Your task to perform on an android device: delete the emails in spam in the gmail app Image 0: 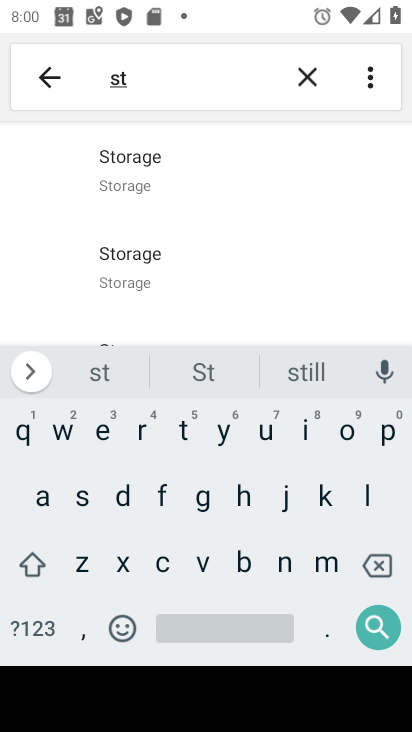
Step 0: press home button
Your task to perform on an android device: delete the emails in spam in the gmail app Image 1: 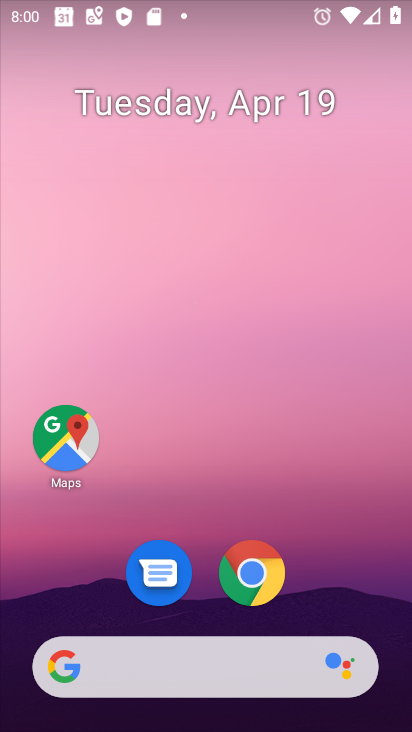
Step 1: drag from (234, 704) to (278, 64)
Your task to perform on an android device: delete the emails in spam in the gmail app Image 2: 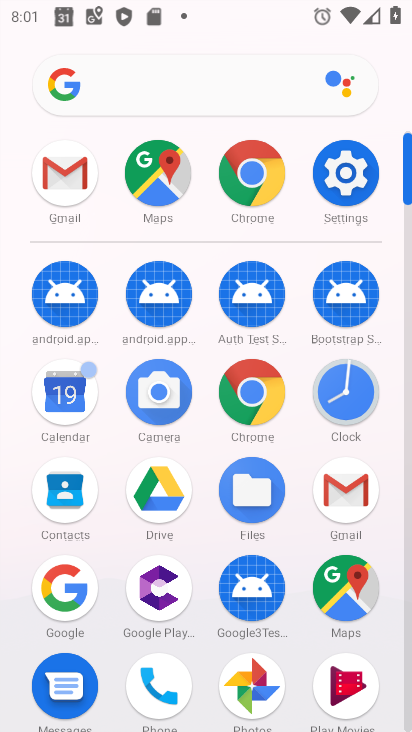
Step 2: click (341, 476)
Your task to perform on an android device: delete the emails in spam in the gmail app Image 3: 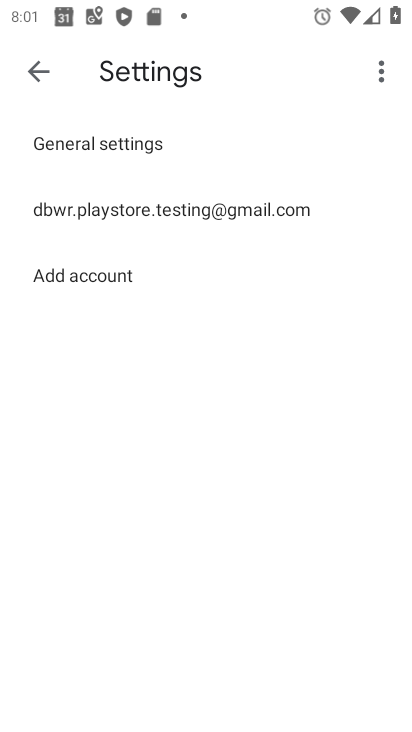
Step 3: click (33, 77)
Your task to perform on an android device: delete the emails in spam in the gmail app Image 4: 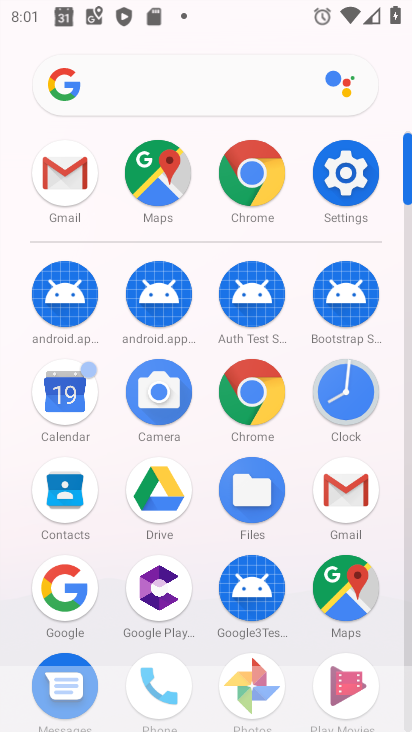
Step 4: click (66, 169)
Your task to perform on an android device: delete the emails in spam in the gmail app Image 5: 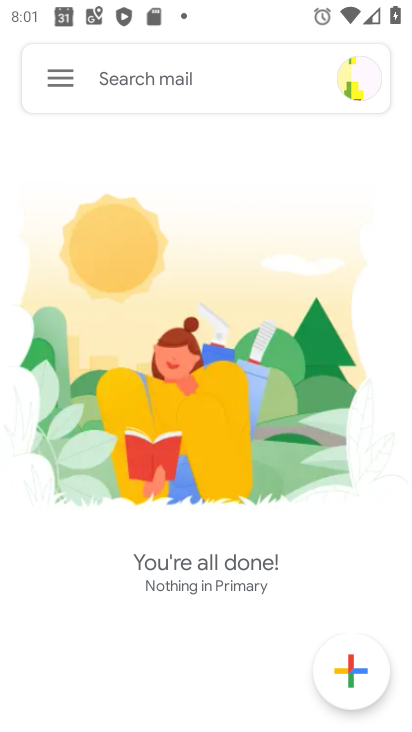
Step 5: click (60, 82)
Your task to perform on an android device: delete the emails in spam in the gmail app Image 6: 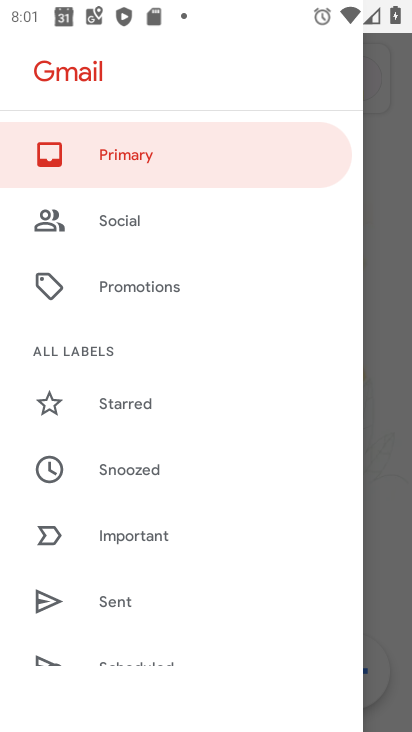
Step 6: drag from (137, 538) to (180, 157)
Your task to perform on an android device: delete the emails in spam in the gmail app Image 7: 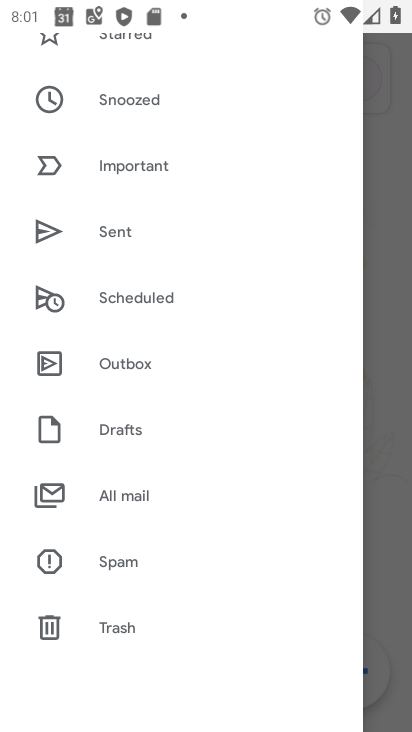
Step 7: click (128, 493)
Your task to perform on an android device: delete the emails in spam in the gmail app Image 8: 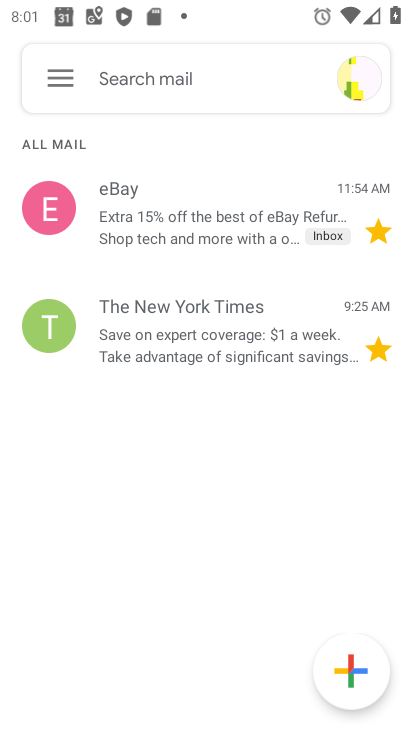
Step 8: click (214, 213)
Your task to perform on an android device: delete the emails in spam in the gmail app Image 9: 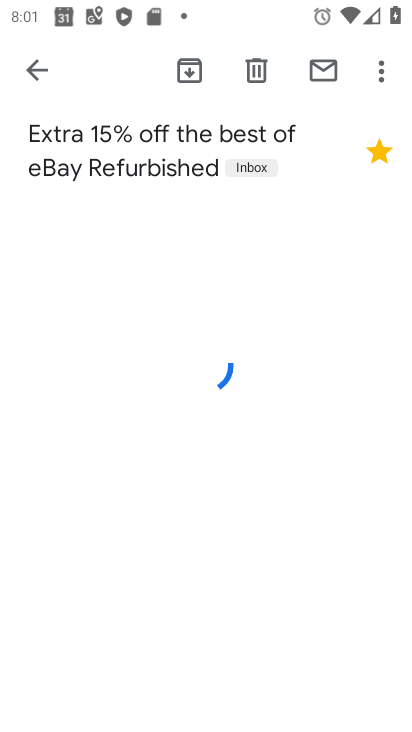
Step 9: click (258, 87)
Your task to perform on an android device: delete the emails in spam in the gmail app Image 10: 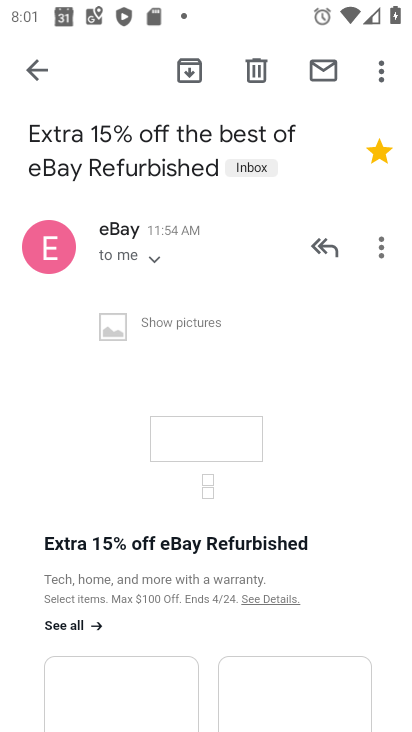
Step 10: click (255, 68)
Your task to perform on an android device: delete the emails in spam in the gmail app Image 11: 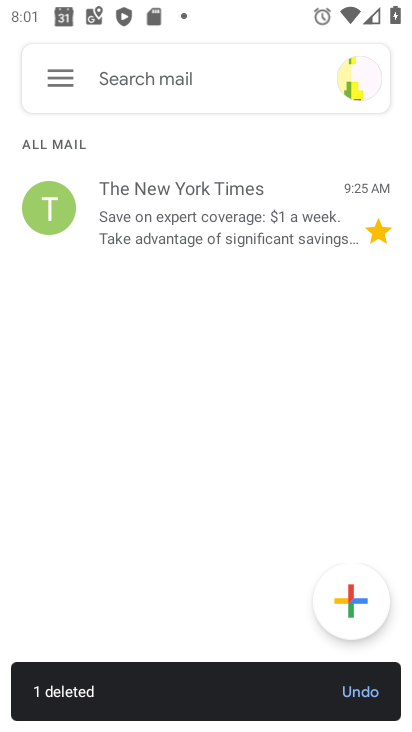
Step 11: task complete